Your task to perform on an android device: Search for sushi restaurants on Maps Image 0: 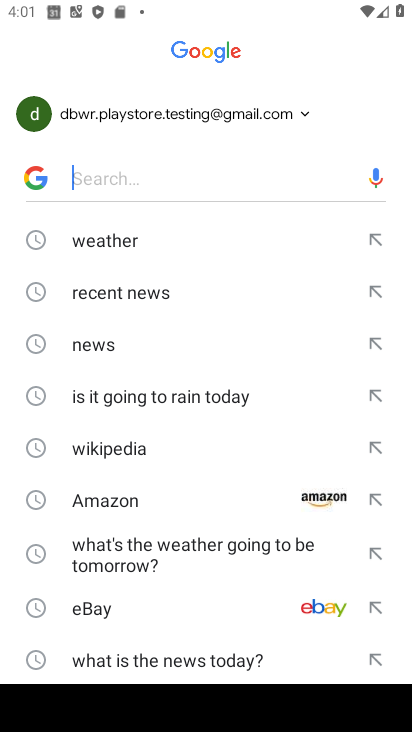
Step 0: press home button
Your task to perform on an android device: Search for sushi restaurants on Maps Image 1: 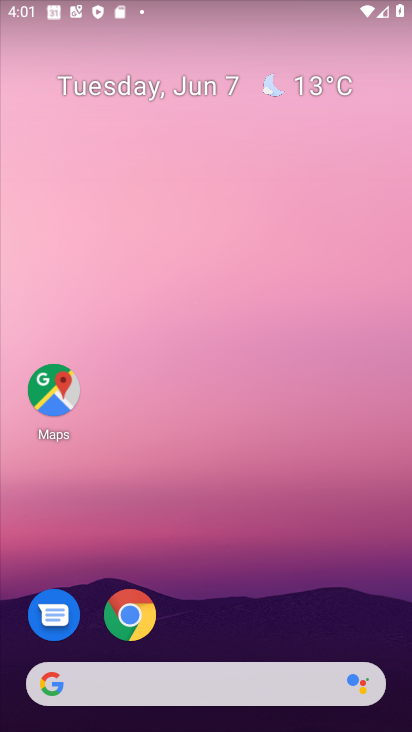
Step 1: click (45, 385)
Your task to perform on an android device: Search for sushi restaurants on Maps Image 2: 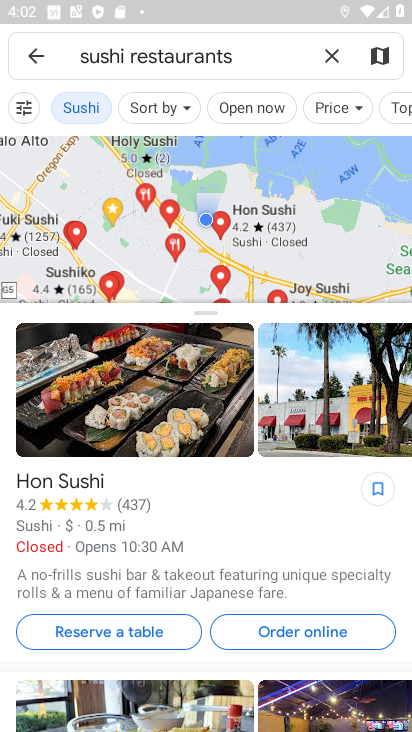
Step 2: task complete